Your task to perform on an android device: Open calendar and show me the fourth week of next month Image 0: 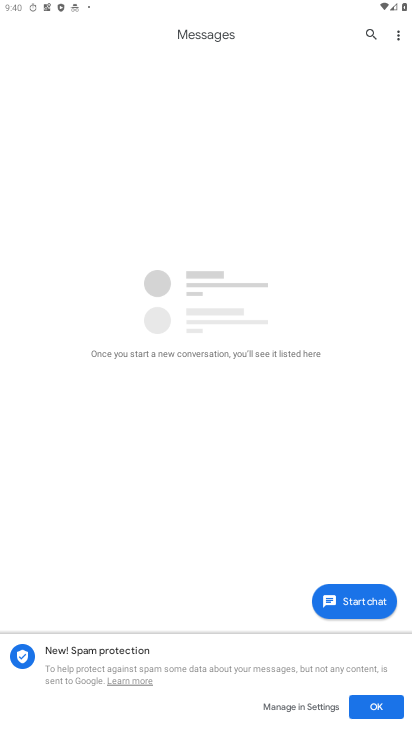
Step 0: press home button
Your task to perform on an android device: Open calendar and show me the fourth week of next month Image 1: 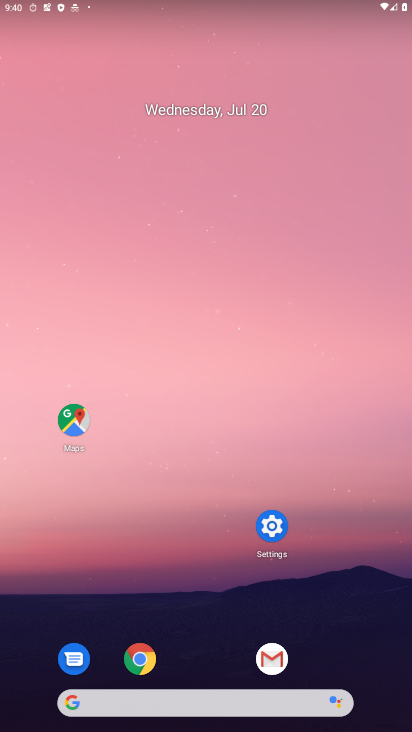
Step 1: drag from (295, 710) to (154, 210)
Your task to perform on an android device: Open calendar and show me the fourth week of next month Image 2: 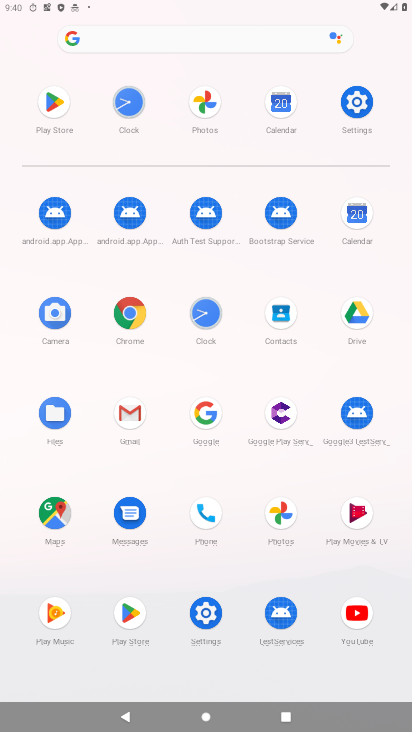
Step 2: click (358, 223)
Your task to perform on an android device: Open calendar and show me the fourth week of next month Image 3: 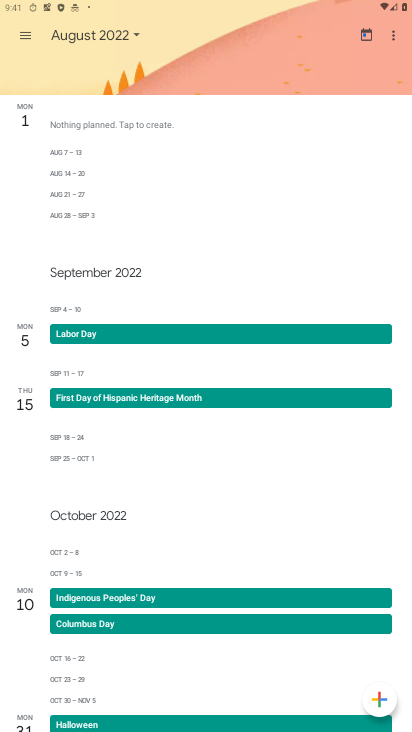
Step 3: click (16, 34)
Your task to perform on an android device: Open calendar and show me the fourth week of next month Image 4: 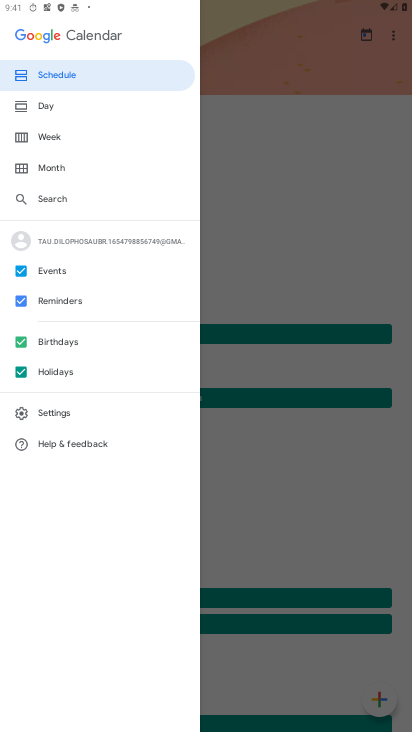
Step 4: click (44, 168)
Your task to perform on an android device: Open calendar and show me the fourth week of next month Image 5: 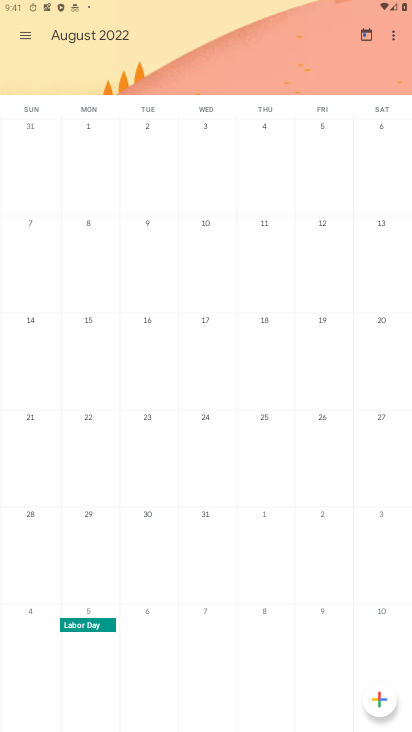
Step 5: click (88, 423)
Your task to perform on an android device: Open calendar and show me the fourth week of next month Image 6: 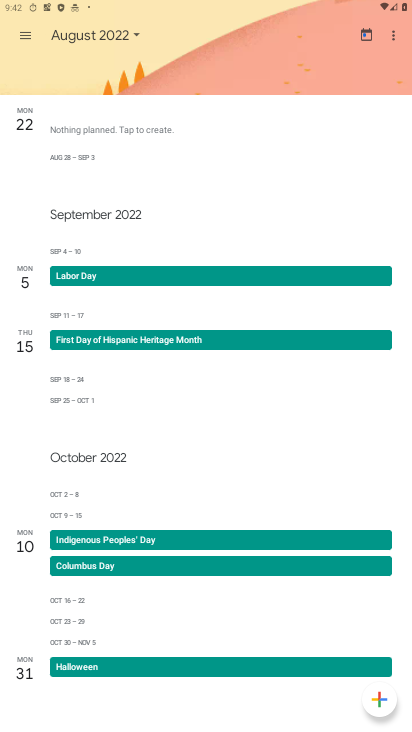
Step 6: task complete